Your task to perform on an android device: Open settings Image 0: 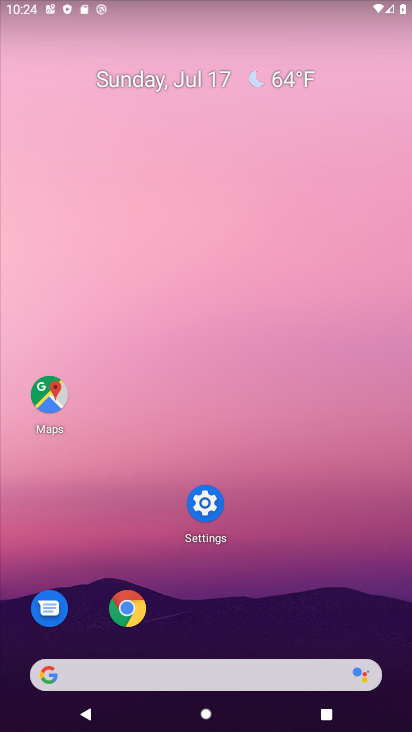
Step 0: click (341, 575)
Your task to perform on an android device: Open settings Image 1: 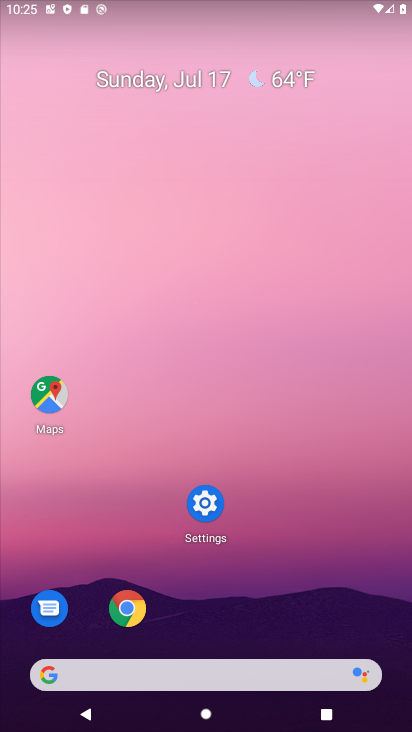
Step 1: drag from (406, 702) to (264, 59)
Your task to perform on an android device: Open settings Image 2: 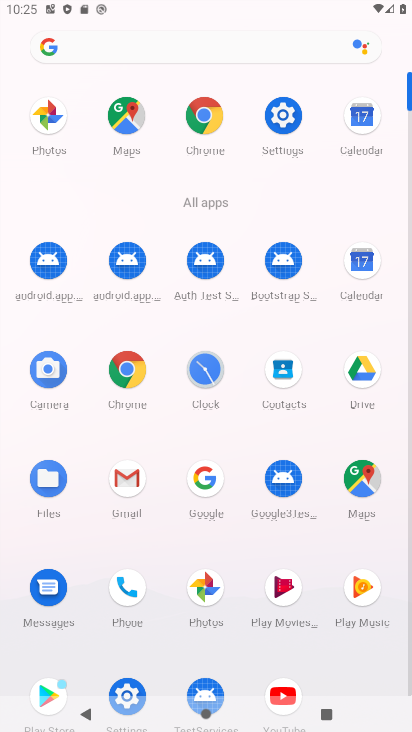
Step 2: click (289, 113)
Your task to perform on an android device: Open settings Image 3: 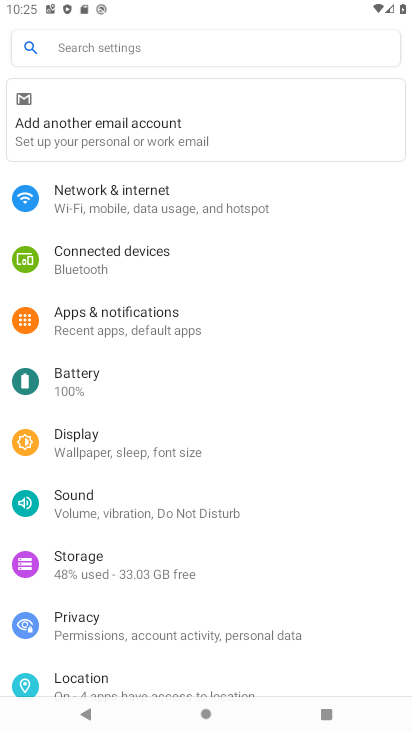
Step 3: task complete